Your task to perform on an android device: What's the weather going to be tomorrow? Image 0: 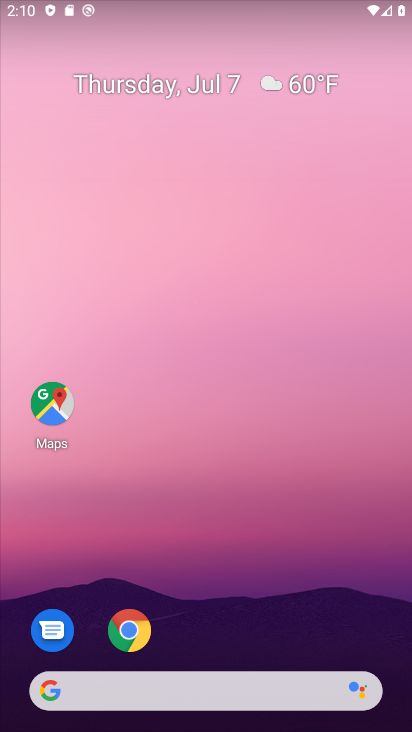
Step 0: drag from (229, 693) to (143, 17)
Your task to perform on an android device: What's the weather going to be tomorrow? Image 1: 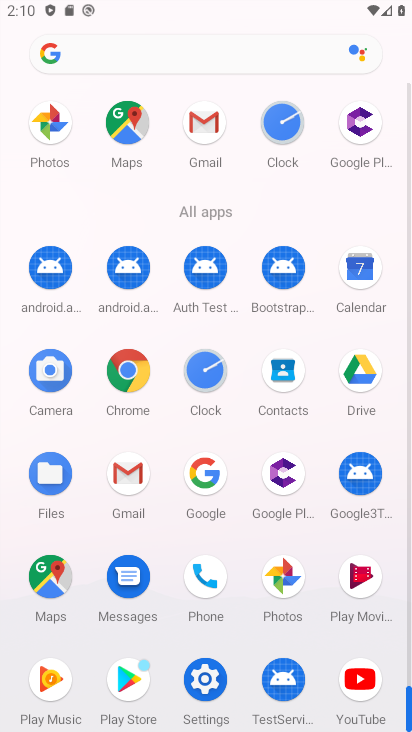
Step 1: click (129, 375)
Your task to perform on an android device: What's the weather going to be tomorrow? Image 2: 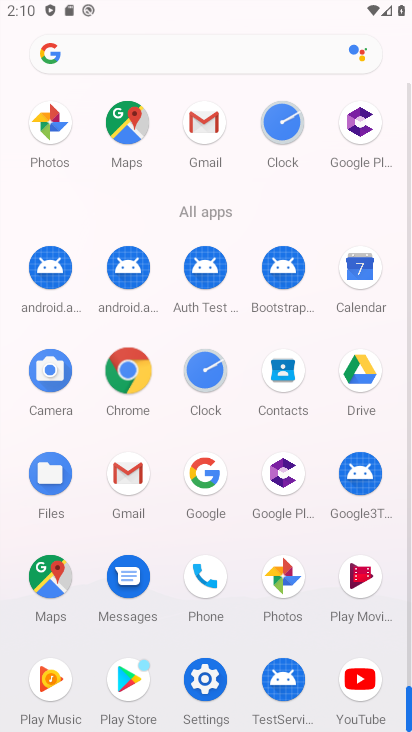
Step 2: click (132, 373)
Your task to perform on an android device: What's the weather going to be tomorrow? Image 3: 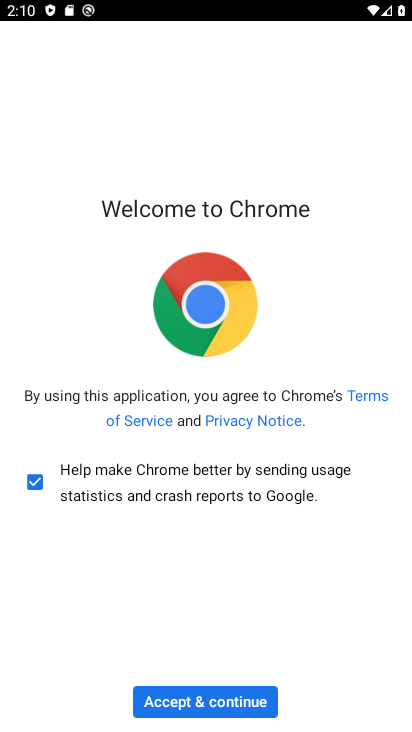
Step 3: click (228, 697)
Your task to perform on an android device: What's the weather going to be tomorrow? Image 4: 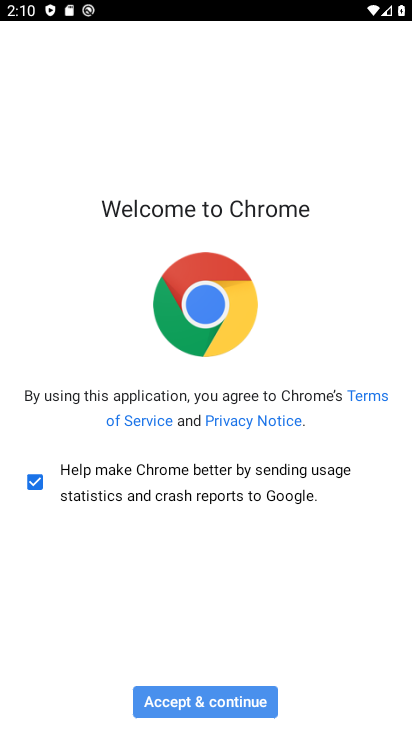
Step 4: click (230, 695)
Your task to perform on an android device: What's the weather going to be tomorrow? Image 5: 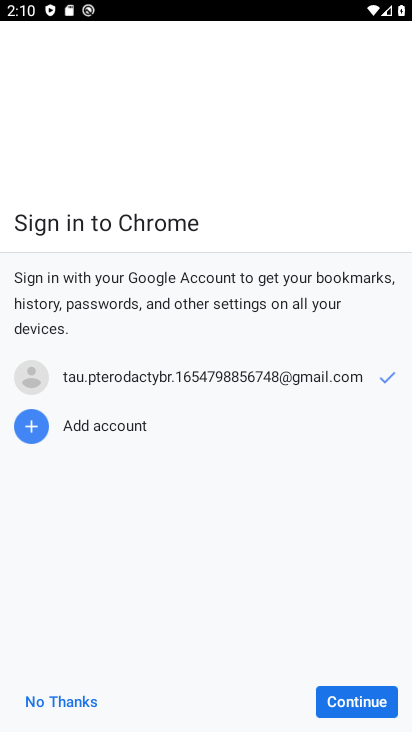
Step 5: click (233, 695)
Your task to perform on an android device: What's the weather going to be tomorrow? Image 6: 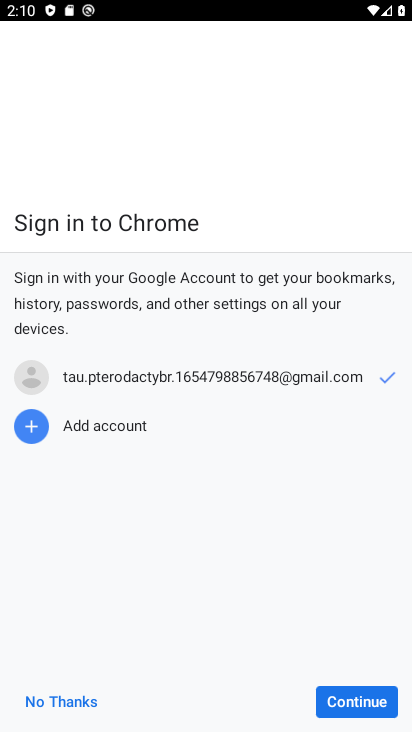
Step 6: click (381, 719)
Your task to perform on an android device: What's the weather going to be tomorrow? Image 7: 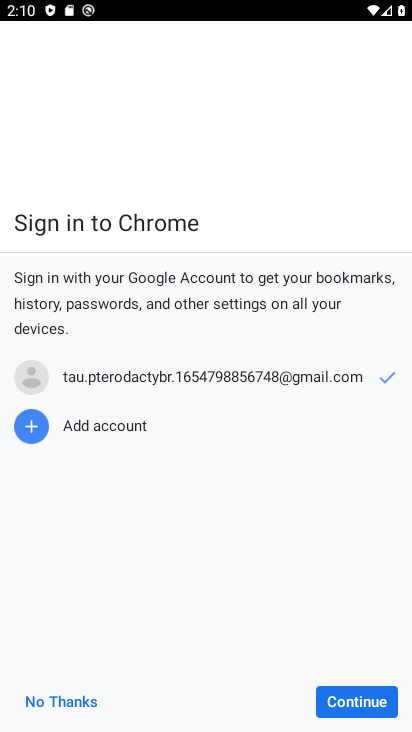
Step 7: click (381, 717)
Your task to perform on an android device: What's the weather going to be tomorrow? Image 8: 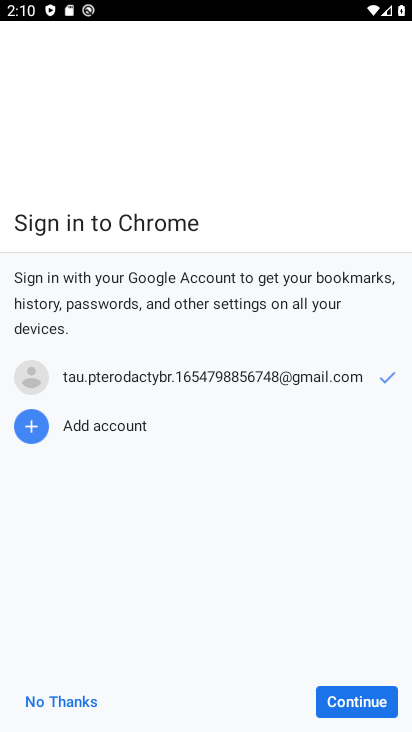
Step 8: click (381, 717)
Your task to perform on an android device: What's the weather going to be tomorrow? Image 9: 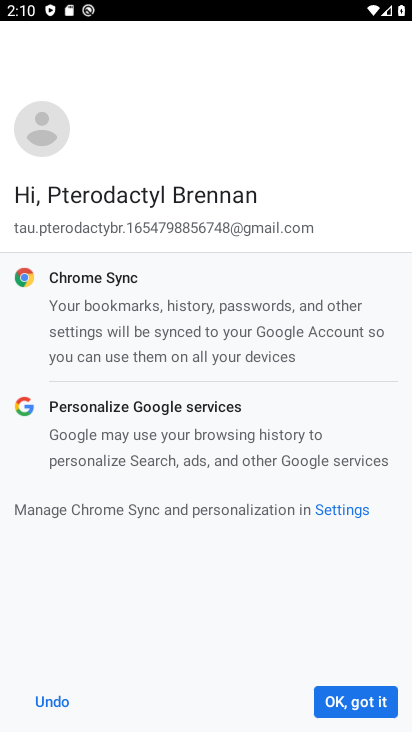
Step 9: click (382, 717)
Your task to perform on an android device: What's the weather going to be tomorrow? Image 10: 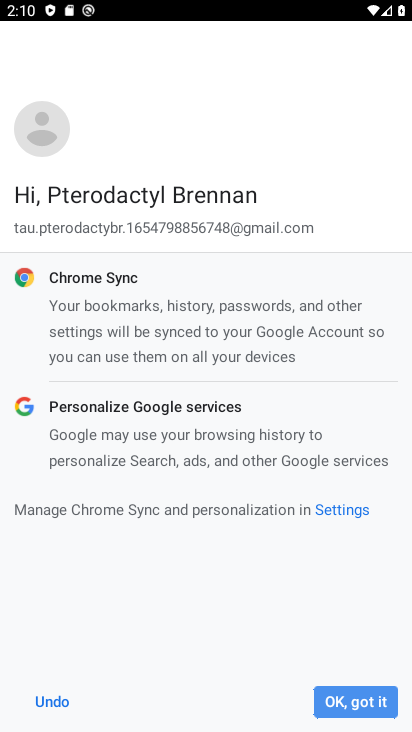
Step 10: click (382, 717)
Your task to perform on an android device: What's the weather going to be tomorrow? Image 11: 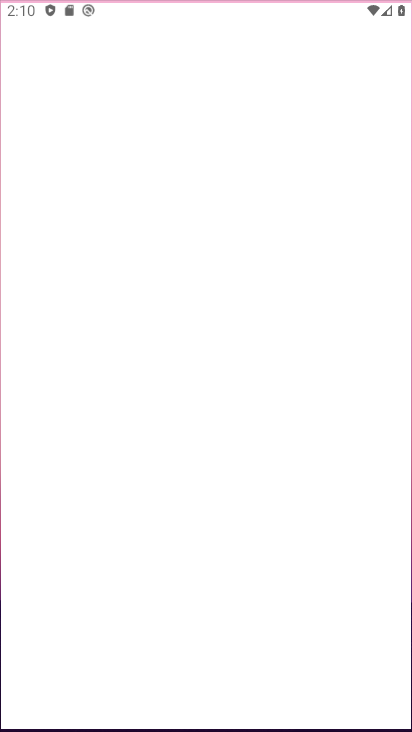
Step 11: click (377, 706)
Your task to perform on an android device: What's the weather going to be tomorrow? Image 12: 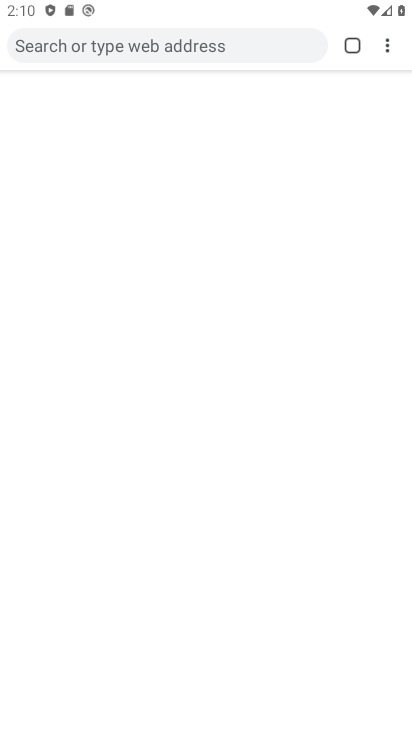
Step 12: click (377, 706)
Your task to perform on an android device: What's the weather going to be tomorrow? Image 13: 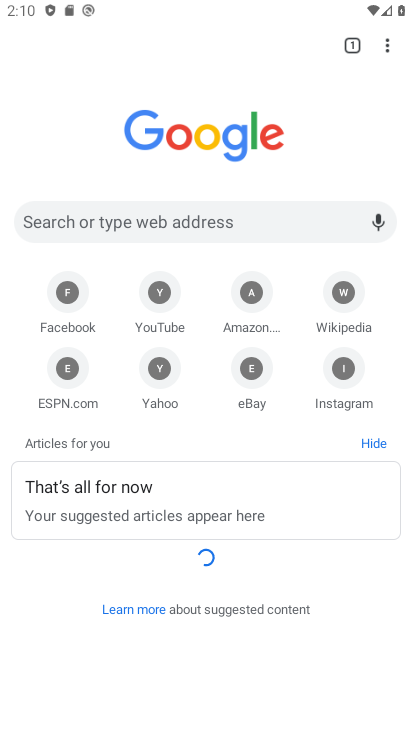
Step 13: click (85, 224)
Your task to perform on an android device: What's the weather going to be tomorrow? Image 14: 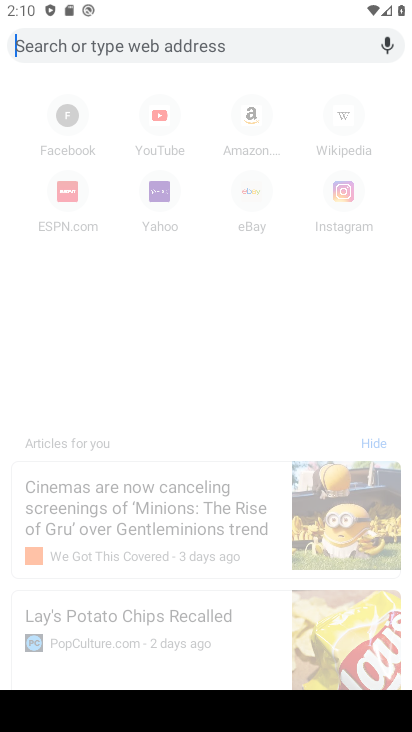
Step 14: type "What's the weather going to be tomorrow?"
Your task to perform on an android device: What's the weather going to be tomorrow? Image 15: 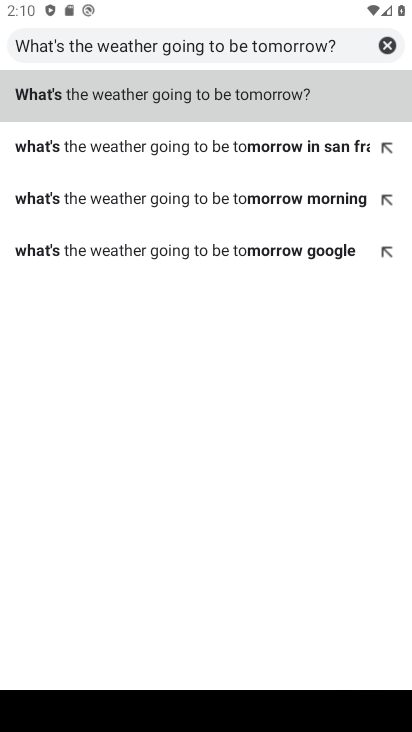
Step 15: click (277, 89)
Your task to perform on an android device: What's the weather going to be tomorrow? Image 16: 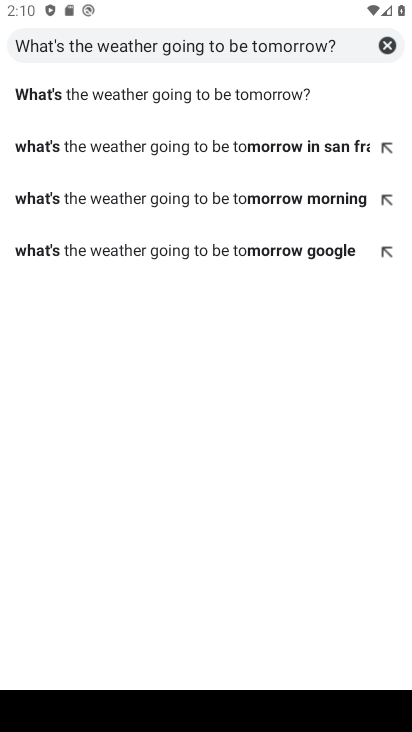
Step 16: click (278, 91)
Your task to perform on an android device: What's the weather going to be tomorrow? Image 17: 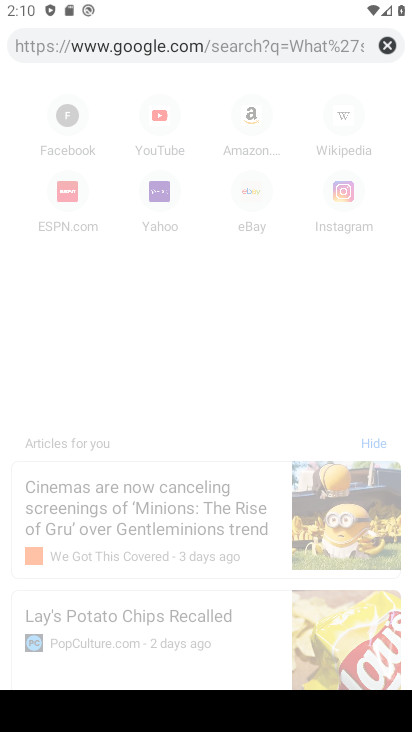
Step 17: click (279, 92)
Your task to perform on an android device: What's the weather going to be tomorrow? Image 18: 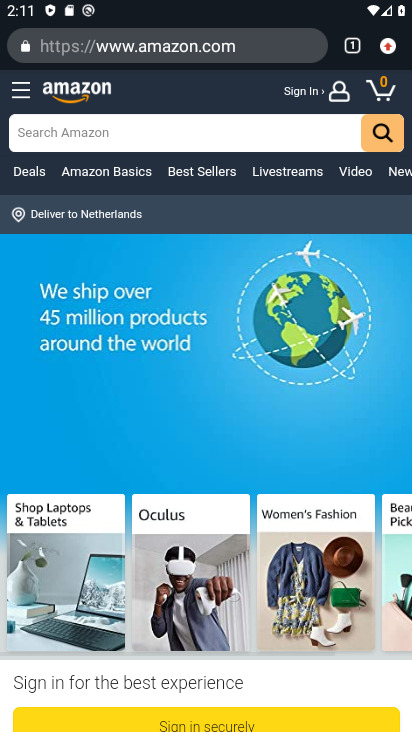
Step 18: task complete